Your task to perform on an android device: Go to internet settings Image 0: 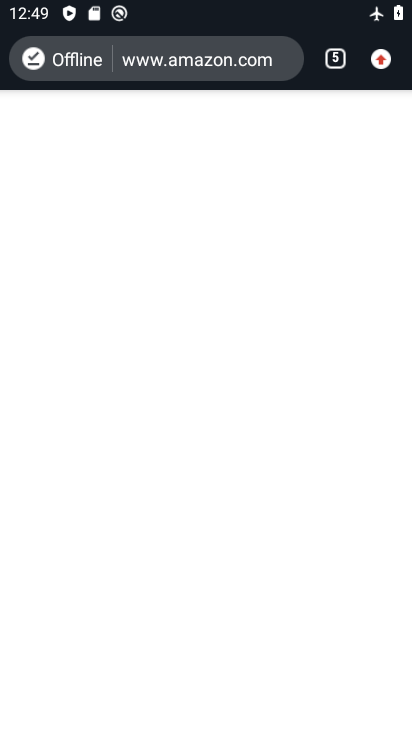
Step 0: press home button
Your task to perform on an android device: Go to internet settings Image 1: 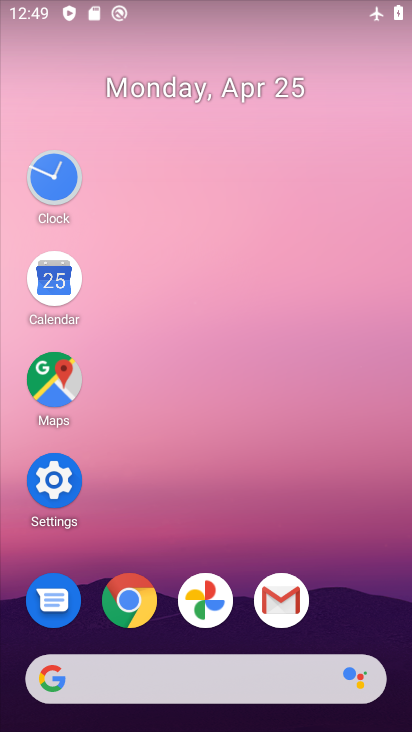
Step 1: click (55, 479)
Your task to perform on an android device: Go to internet settings Image 2: 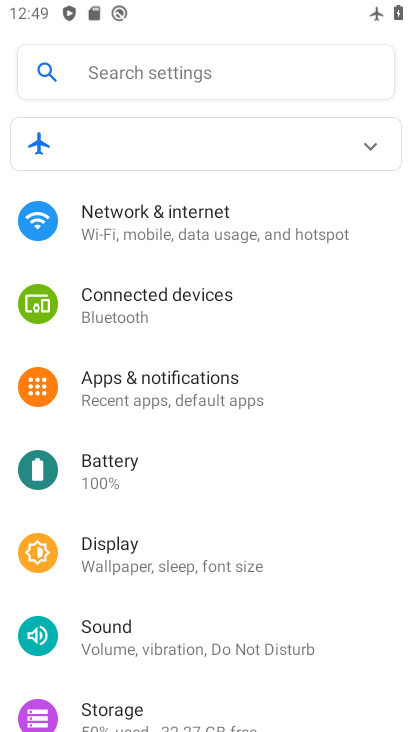
Step 2: click (172, 211)
Your task to perform on an android device: Go to internet settings Image 3: 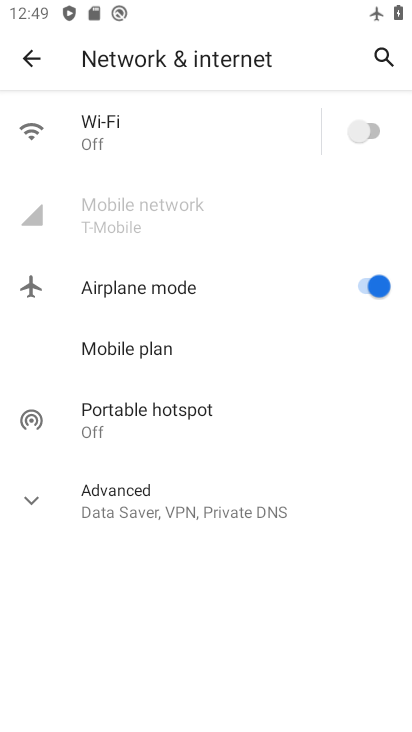
Step 3: task complete